Your task to perform on an android device: Go to eBay Image 0: 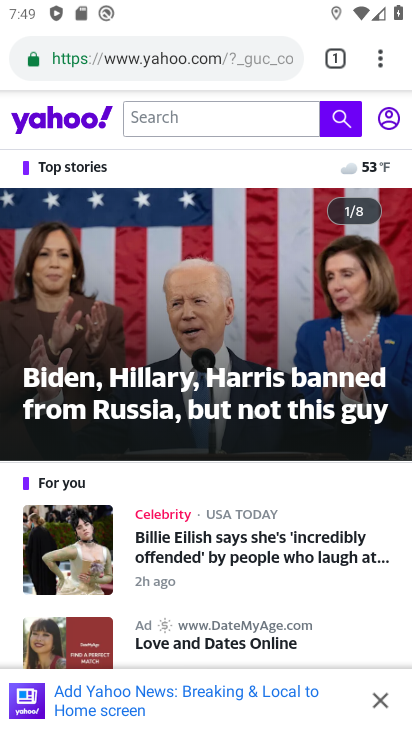
Step 0: press home button
Your task to perform on an android device: Go to eBay Image 1: 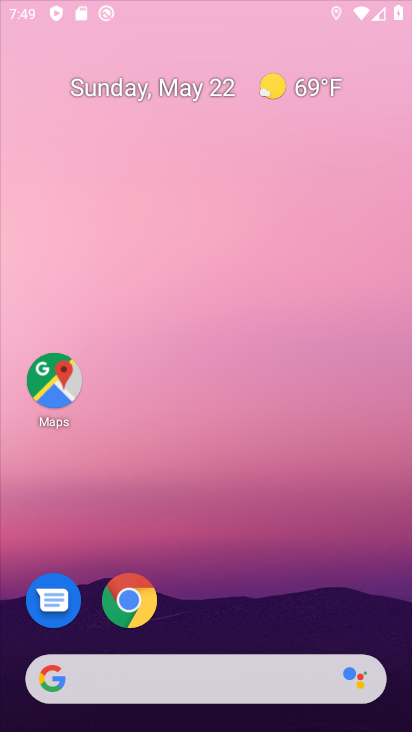
Step 1: drag from (238, 559) to (267, 193)
Your task to perform on an android device: Go to eBay Image 2: 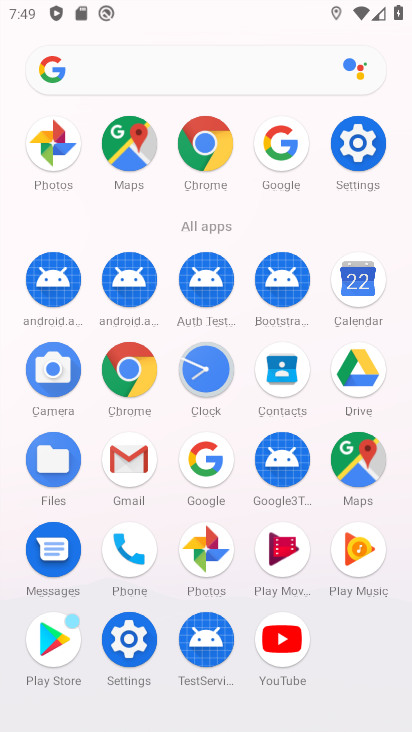
Step 2: click (290, 149)
Your task to perform on an android device: Go to eBay Image 3: 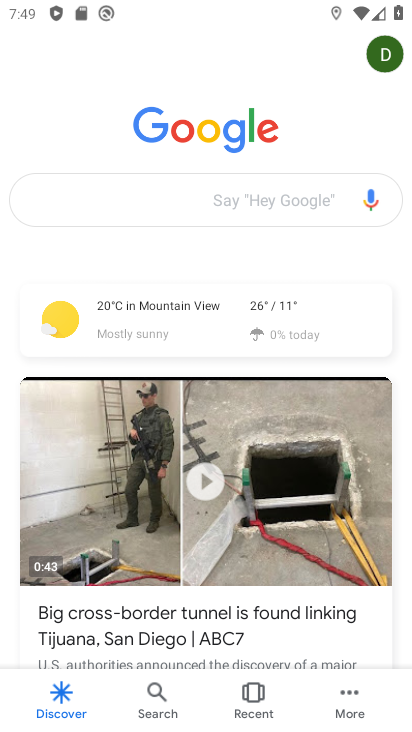
Step 3: click (204, 198)
Your task to perform on an android device: Go to eBay Image 4: 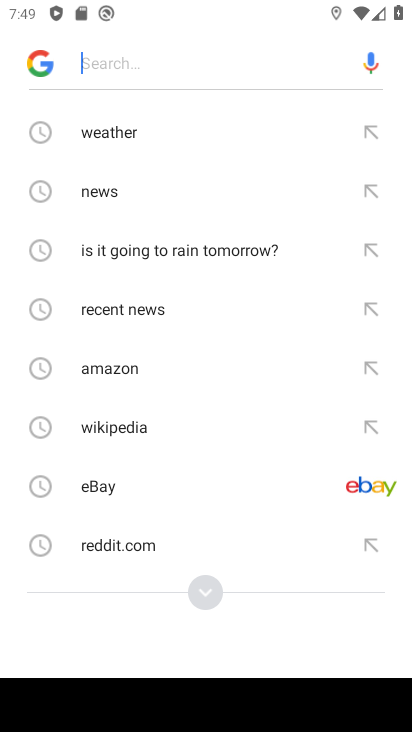
Step 4: click (119, 481)
Your task to perform on an android device: Go to eBay Image 5: 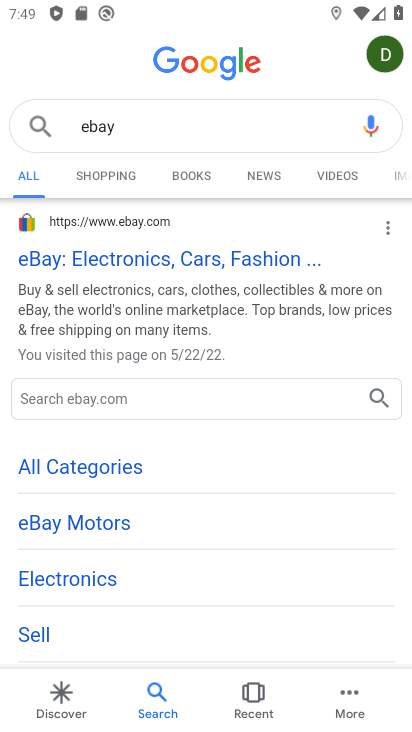
Step 5: click (149, 259)
Your task to perform on an android device: Go to eBay Image 6: 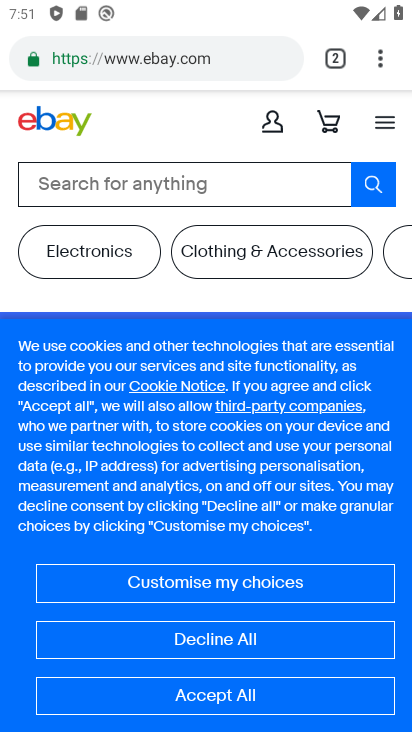
Step 6: task complete